Your task to perform on an android device: How much does a3 bedroom apartment rent for in Portland? Image 0: 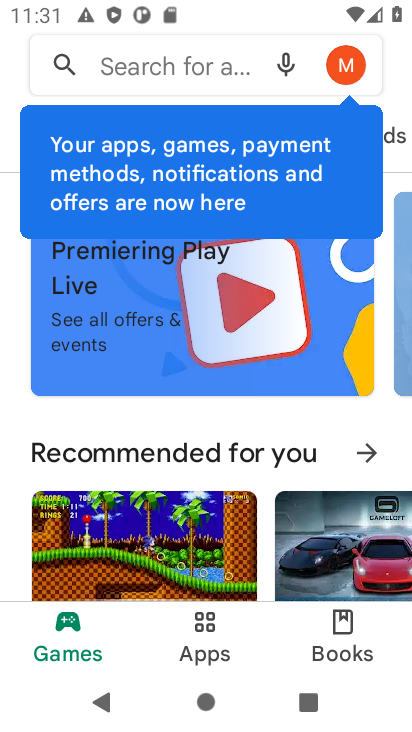
Step 0: press home button
Your task to perform on an android device: How much does a3 bedroom apartment rent for in Portland? Image 1: 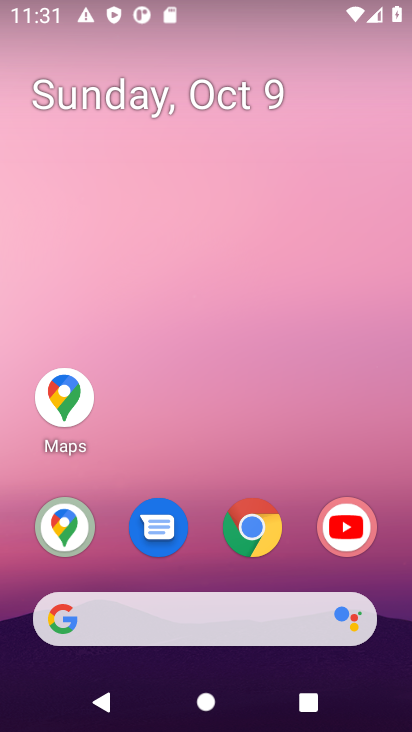
Step 1: click (241, 525)
Your task to perform on an android device: How much does a3 bedroom apartment rent for in Portland? Image 2: 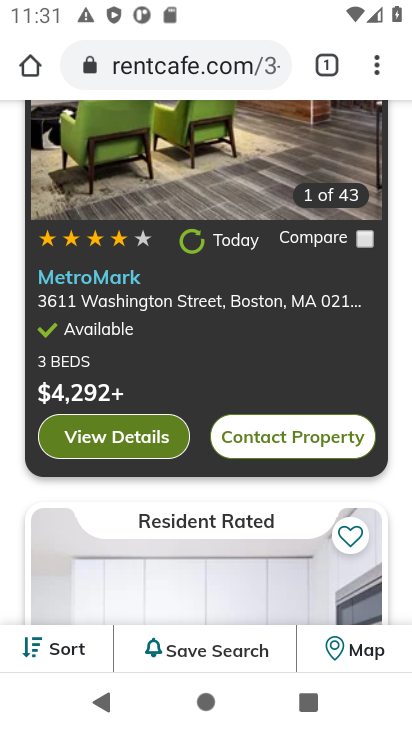
Step 2: click (171, 67)
Your task to perform on an android device: How much does a3 bedroom apartment rent for in Portland? Image 3: 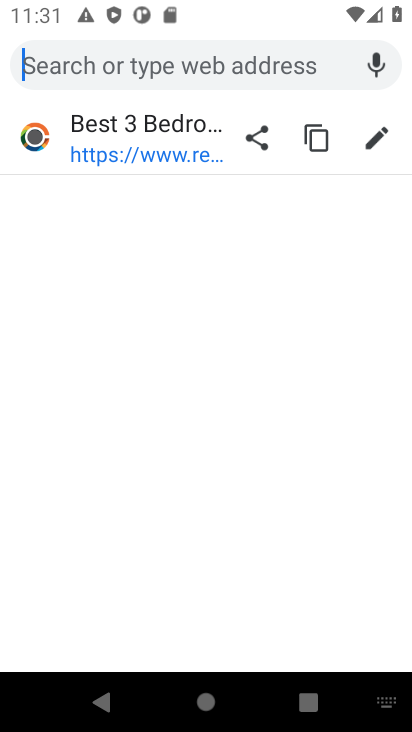
Step 3: drag from (267, 706) to (406, 686)
Your task to perform on an android device: How much does a3 bedroom apartment rent for in Portland? Image 4: 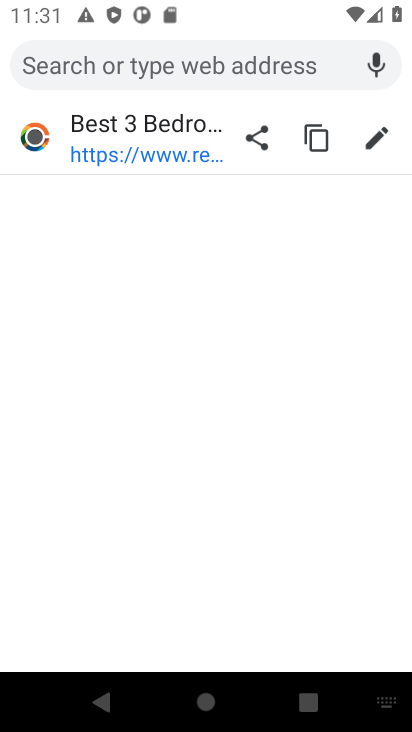
Step 4: type "How much does a3 bedroom apartment rent for in Portland?"
Your task to perform on an android device: How much does a3 bedroom apartment rent for in Portland? Image 5: 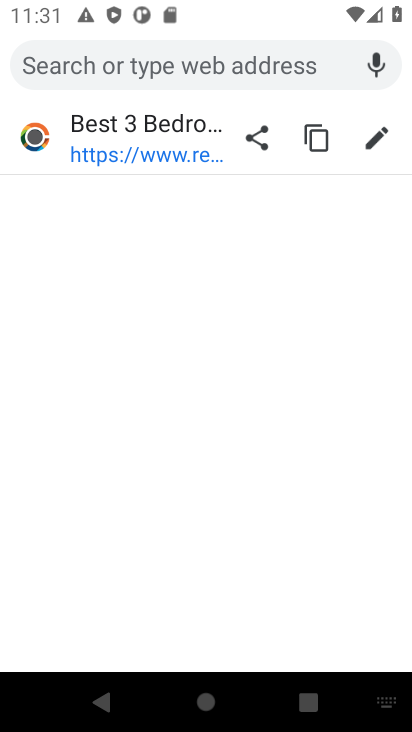
Step 5: drag from (406, 686) to (410, 151)
Your task to perform on an android device: How much does a3 bedroom apartment rent for in Portland? Image 6: 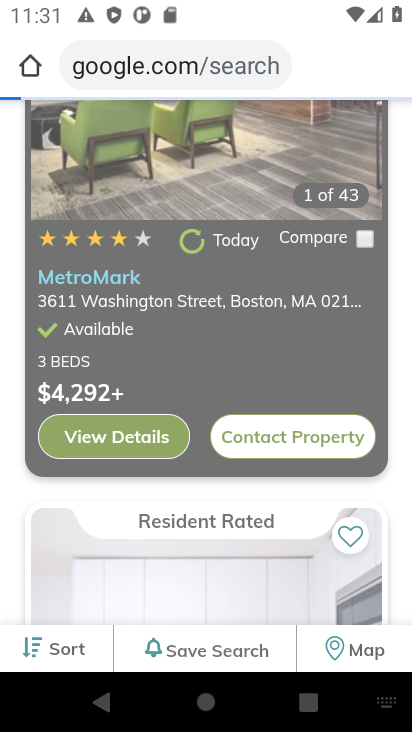
Step 6: click (332, 151)
Your task to perform on an android device: How much does a3 bedroom apartment rent for in Portland? Image 7: 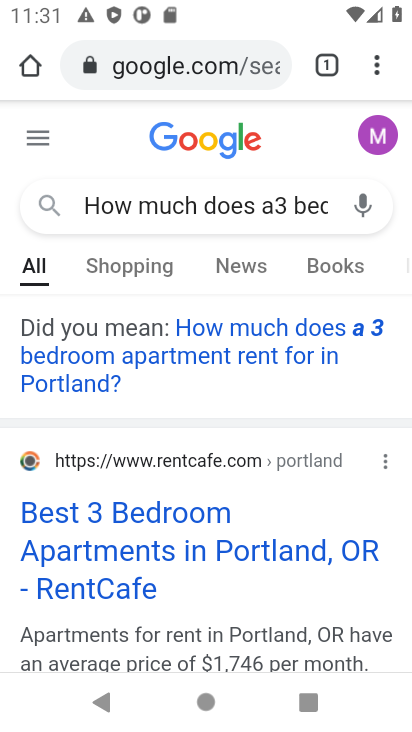
Step 7: click (169, 560)
Your task to perform on an android device: How much does a3 bedroom apartment rent for in Portland? Image 8: 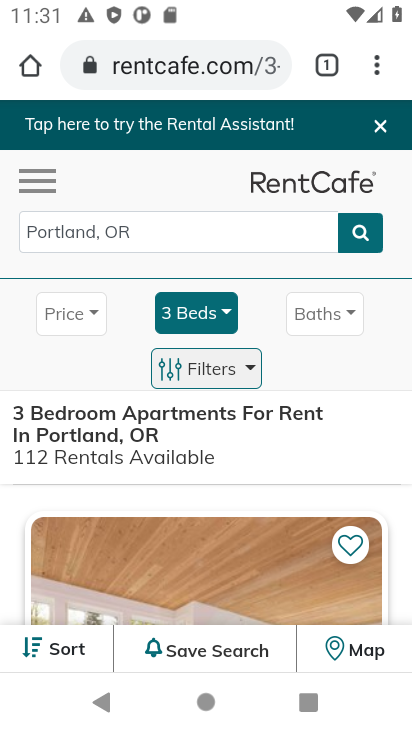
Step 8: task complete